Your task to perform on an android device: manage bookmarks in the chrome app Image 0: 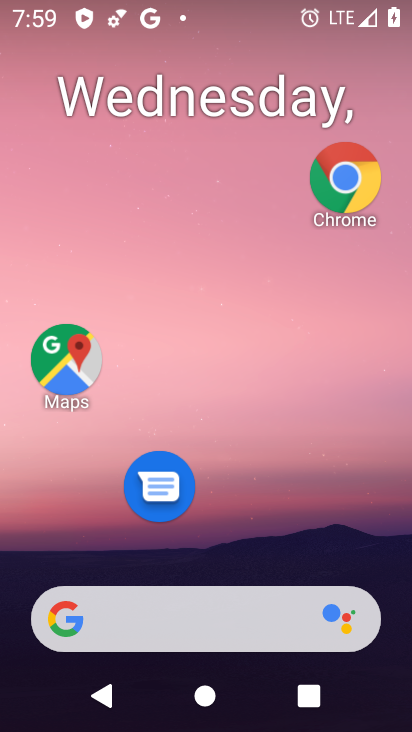
Step 0: drag from (240, 624) to (273, 56)
Your task to perform on an android device: manage bookmarks in the chrome app Image 1: 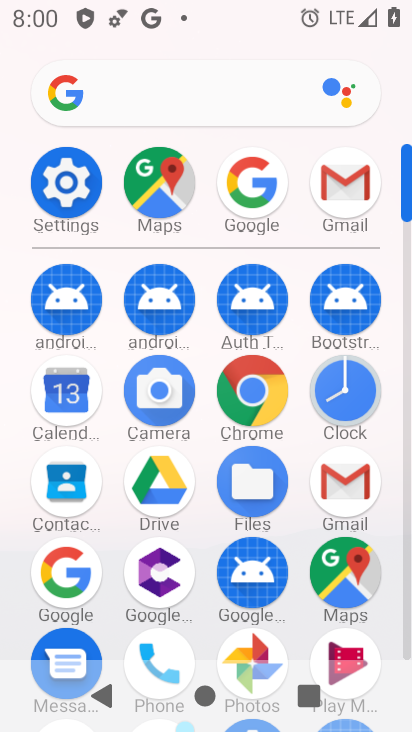
Step 1: click (270, 390)
Your task to perform on an android device: manage bookmarks in the chrome app Image 2: 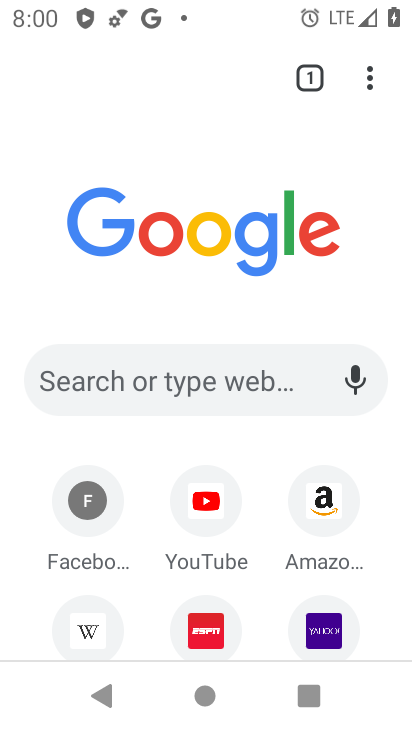
Step 2: click (373, 75)
Your task to perform on an android device: manage bookmarks in the chrome app Image 3: 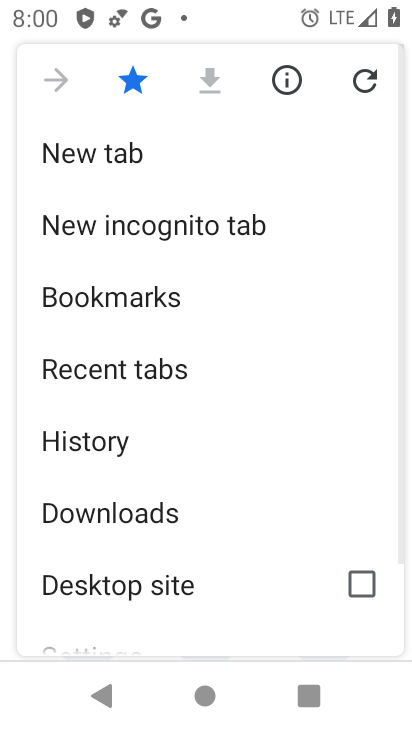
Step 3: drag from (216, 531) to (231, 270)
Your task to perform on an android device: manage bookmarks in the chrome app Image 4: 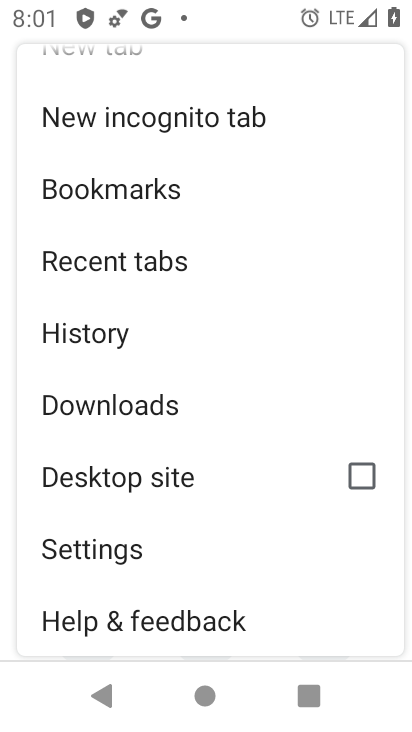
Step 4: click (134, 198)
Your task to perform on an android device: manage bookmarks in the chrome app Image 5: 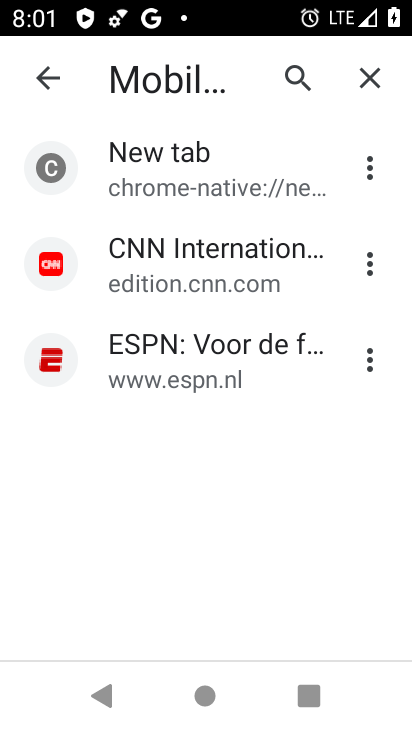
Step 5: task complete